Your task to perform on an android device: Open maps Image 0: 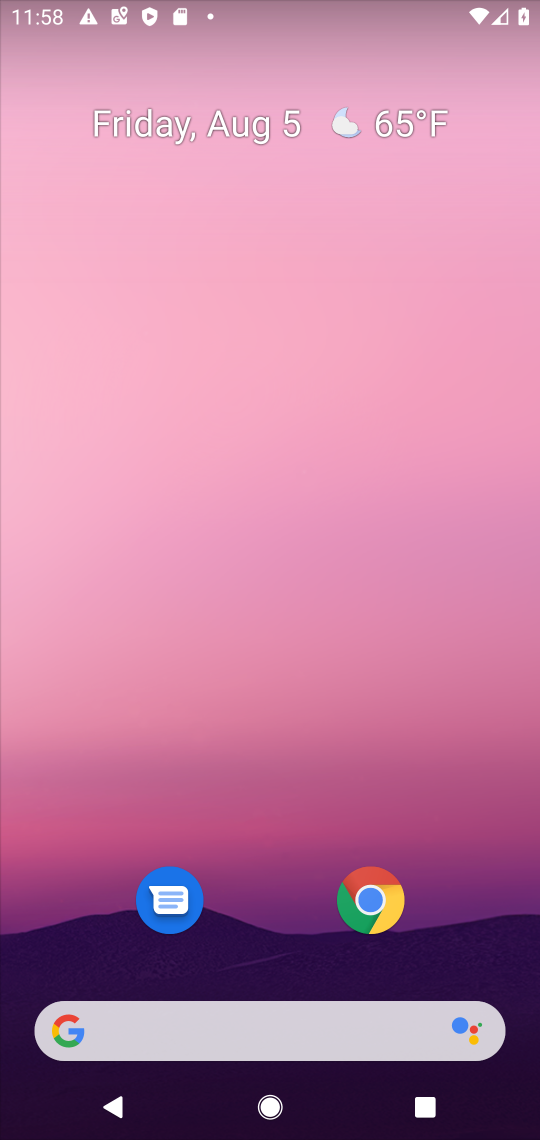
Step 0: drag from (259, 770) to (259, 97)
Your task to perform on an android device: Open maps Image 1: 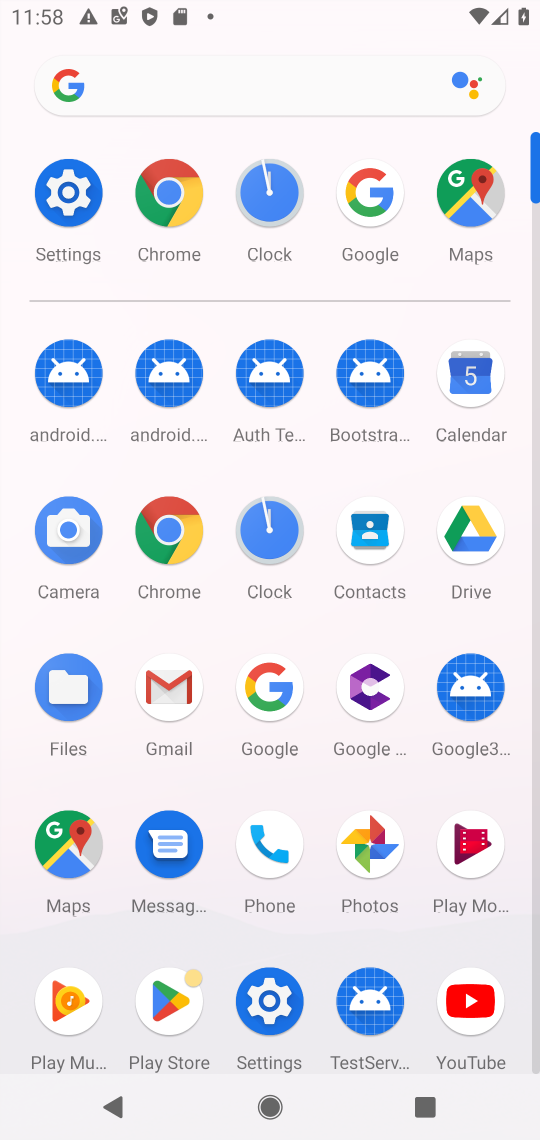
Step 1: click (53, 845)
Your task to perform on an android device: Open maps Image 2: 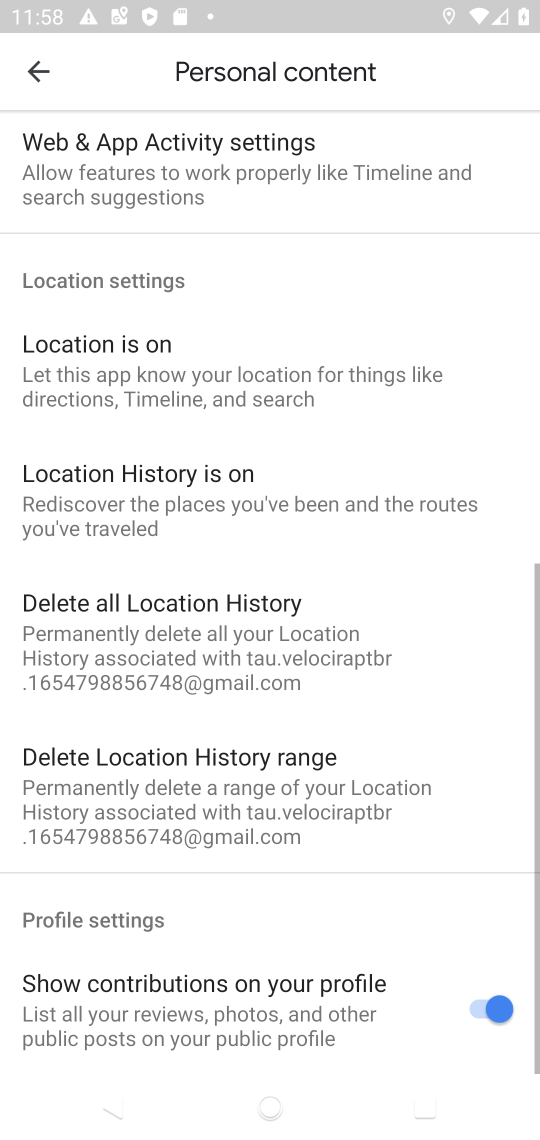
Step 2: click (47, 58)
Your task to perform on an android device: Open maps Image 3: 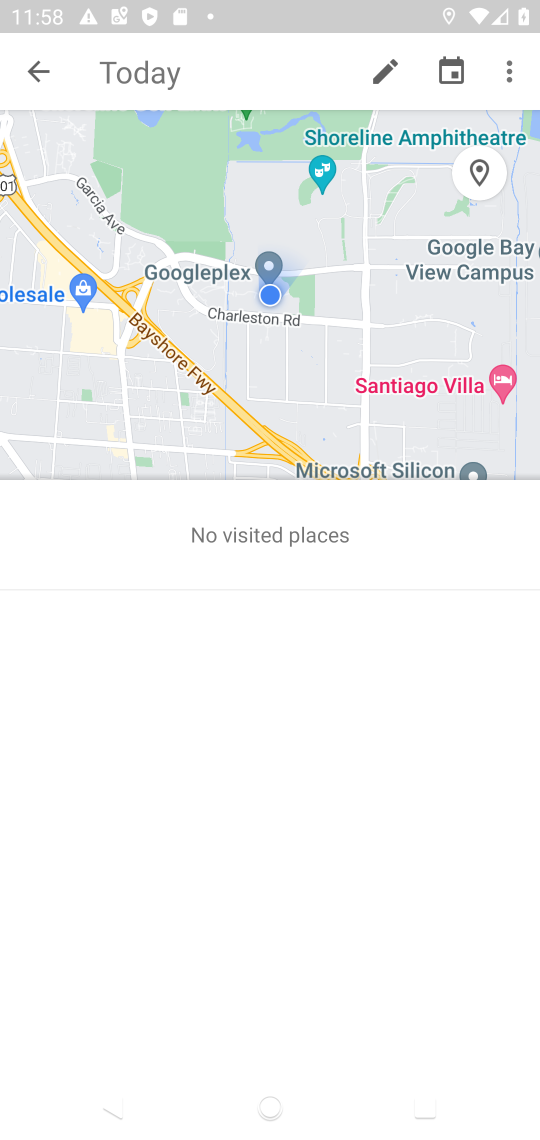
Step 3: task complete